Your task to perform on an android device: change the clock style Image 0: 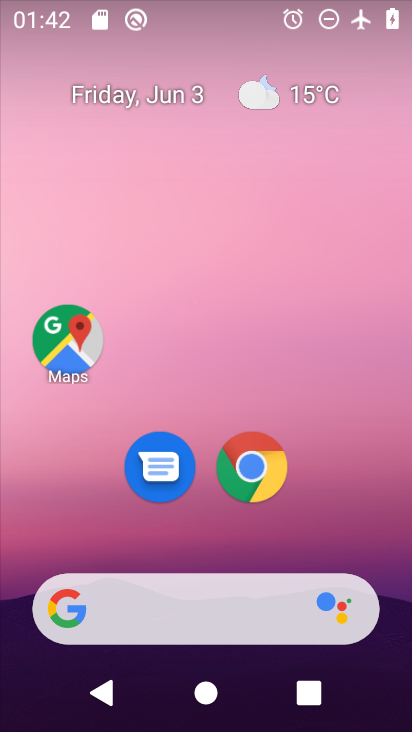
Step 0: drag from (396, 613) to (359, 108)
Your task to perform on an android device: change the clock style Image 1: 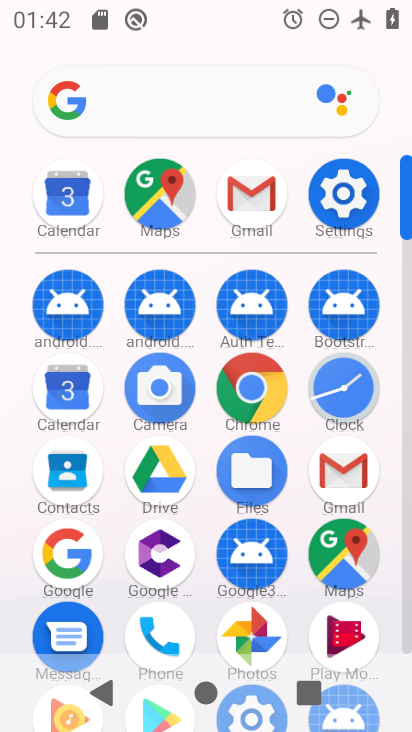
Step 1: click (342, 386)
Your task to perform on an android device: change the clock style Image 2: 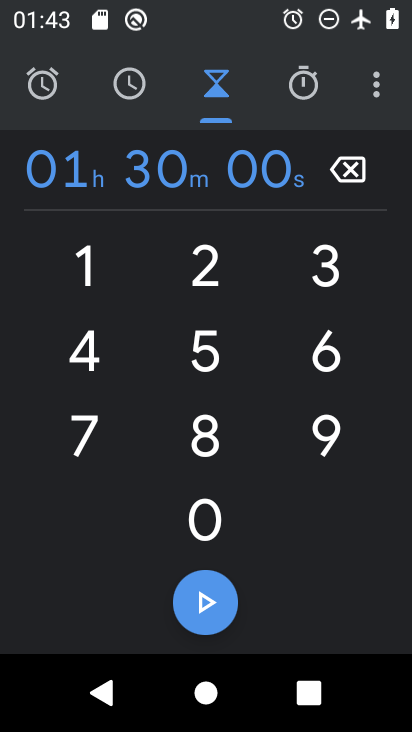
Step 2: click (373, 93)
Your task to perform on an android device: change the clock style Image 3: 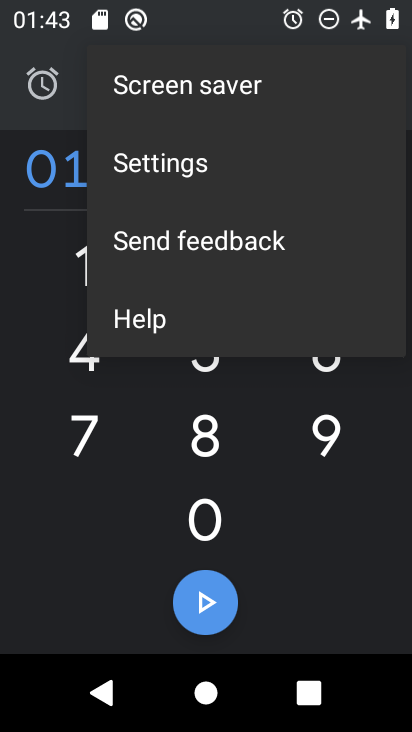
Step 3: click (158, 165)
Your task to perform on an android device: change the clock style Image 4: 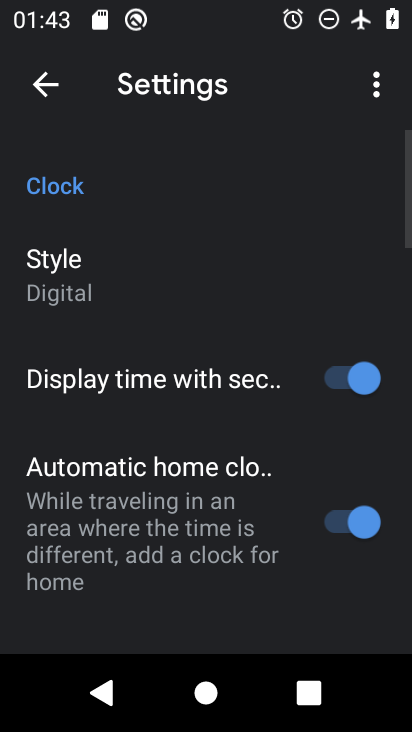
Step 4: click (90, 260)
Your task to perform on an android device: change the clock style Image 5: 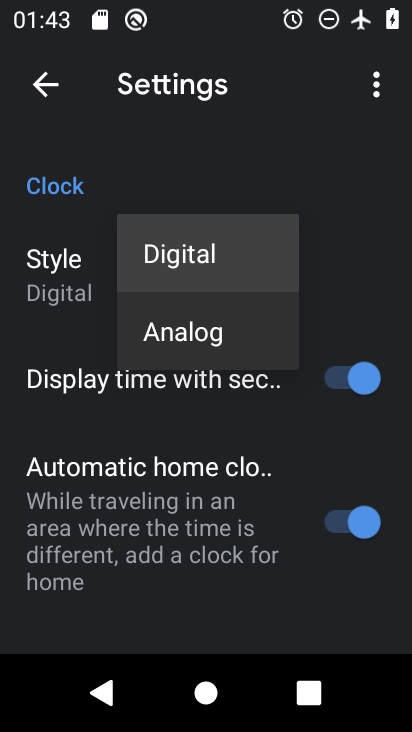
Step 5: click (172, 334)
Your task to perform on an android device: change the clock style Image 6: 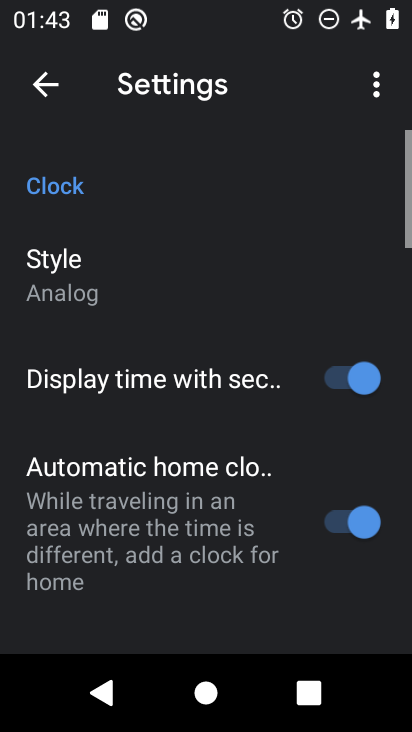
Step 6: task complete